Your task to perform on an android device: Add razer naga to the cart on walmart.com, then select checkout. Image 0: 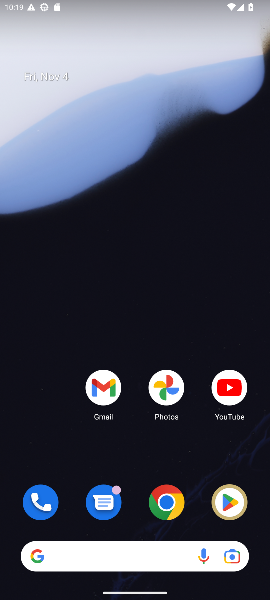
Step 0: drag from (134, 457) to (159, 43)
Your task to perform on an android device: Add razer naga to the cart on walmart.com, then select checkout. Image 1: 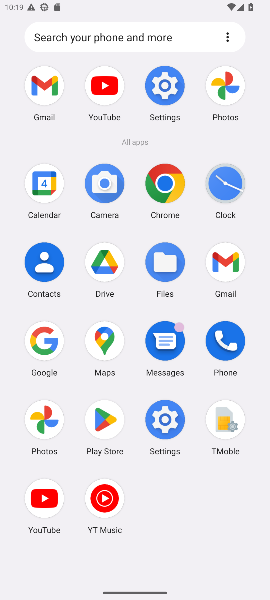
Step 1: click (169, 179)
Your task to perform on an android device: Add razer naga to the cart on walmart.com, then select checkout. Image 2: 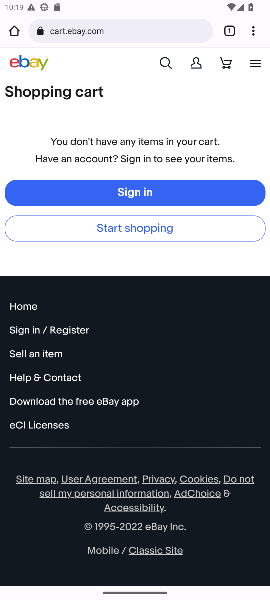
Step 2: click (125, 28)
Your task to perform on an android device: Add razer naga to the cart on walmart.com, then select checkout. Image 3: 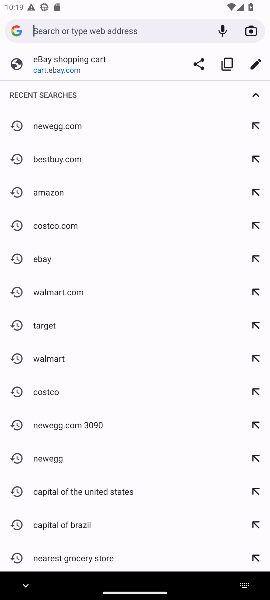
Step 3: type ""
Your task to perform on an android device: Add razer naga to the cart on walmart.com, then select checkout. Image 4: 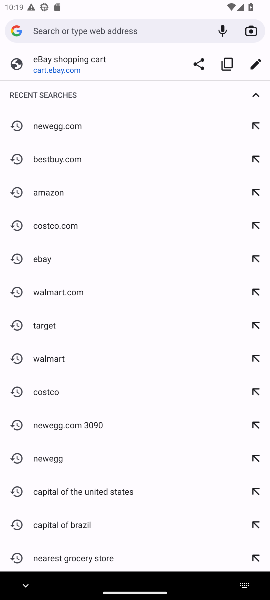
Step 4: type "walmart.com"
Your task to perform on an android device: Add razer naga to the cart on walmart.com, then select checkout. Image 5: 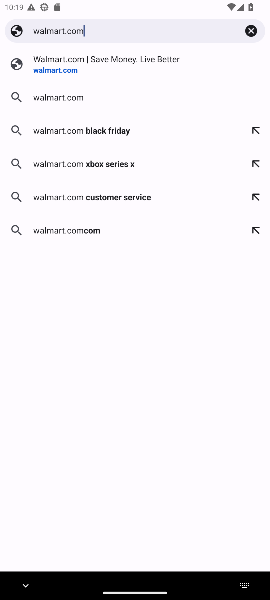
Step 5: press enter
Your task to perform on an android device: Add razer naga to the cart on walmart.com, then select checkout. Image 6: 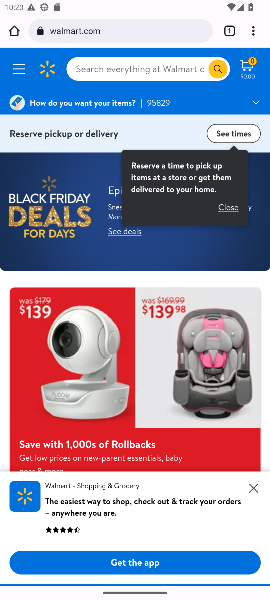
Step 6: click (175, 68)
Your task to perform on an android device: Add razer naga to the cart on walmart.com, then select checkout. Image 7: 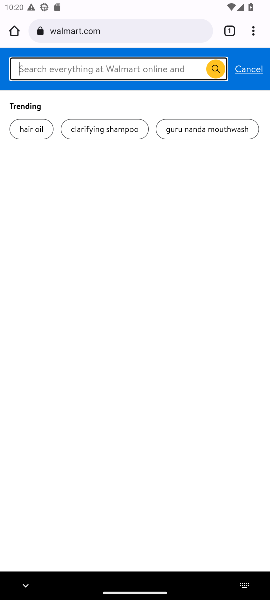
Step 7: type "razer naga"
Your task to perform on an android device: Add razer naga to the cart on walmart.com, then select checkout. Image 8: 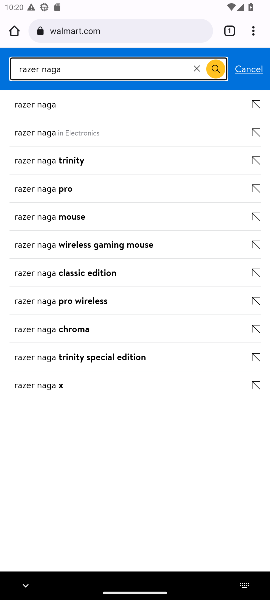
Step 8: press enter
Your task to perform on an android device: Add razer naga to the cart on walmart.com, then select checkout. Image 9: 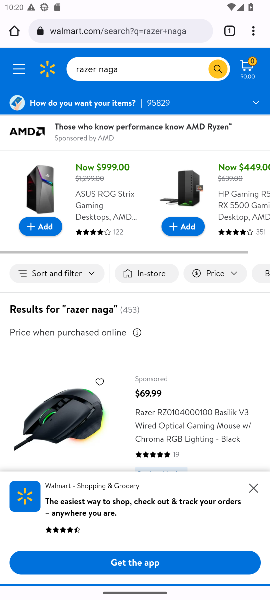
Step 9: drag from (118, 431) to (112, 77)
Your task to perform on an android device: Add razer naga to the cart on walmart.com, then select checkout. Image 10: 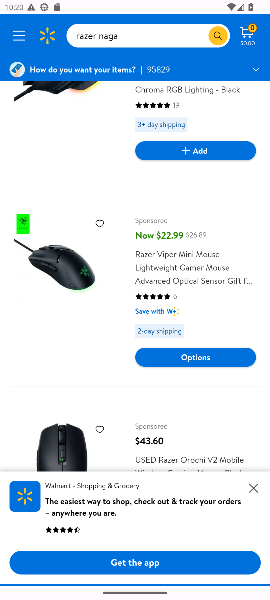
Step 10: drag from (128, 427) to (134, 75)
Your task to perform on an android device: Add razer naga to the cart on walmart.com, then select checkout. Image 11: 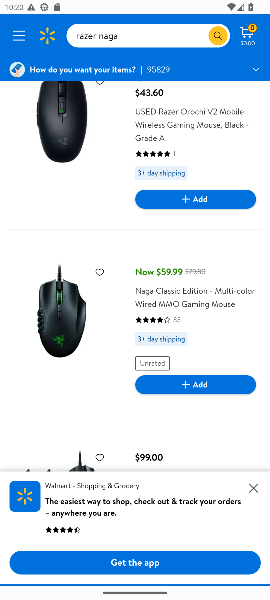
Step 11: click (63, 197)
Your task to perform on an android device: Add razer naga to the cart on walmart.com, then select checkout. Image 12: 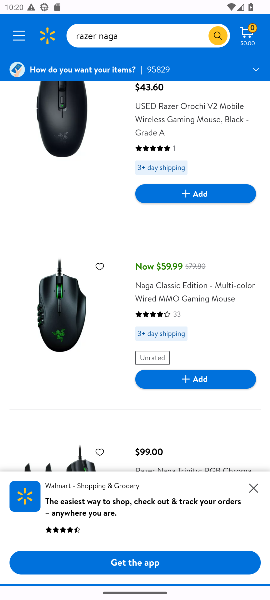
Step 12: drag from (199, 335) to (181, 173)
Your task to perform on an android device: Add razer naga to the cart on walmart.com, then select checkout. Image 13: 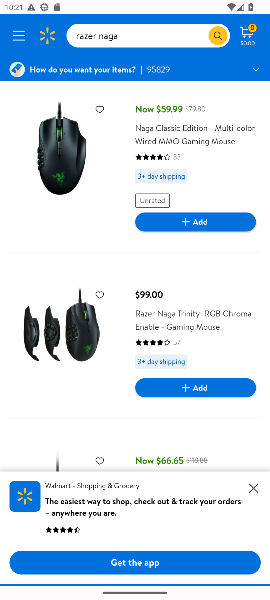
Step 13: click (200, 387)
Your task to perform on an android device: Add razer naga to the cart on walmart.com, then select checkout. Image 14: 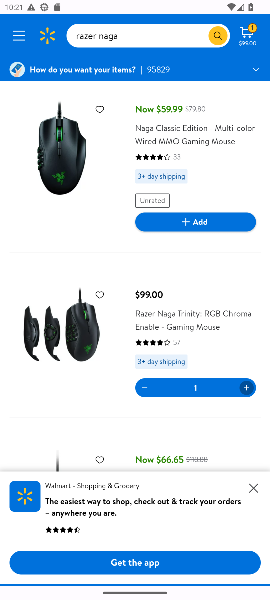
Step 14: click (244, 34)
Your task to perform on an android device: Add razer naga to the cart on walmart.com, then select checkout. Image 15: 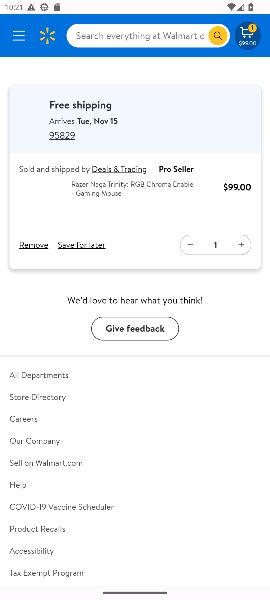
Step 15: task complete